Your task to perform on an android device: set default search engine in the chrome app Image 0: 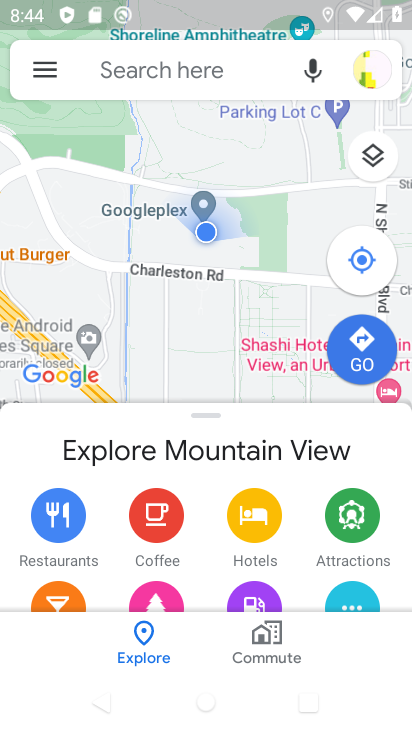
Step 0: press home button
Your task to perform on an android device: set default search engine in the chrome app Image 1: 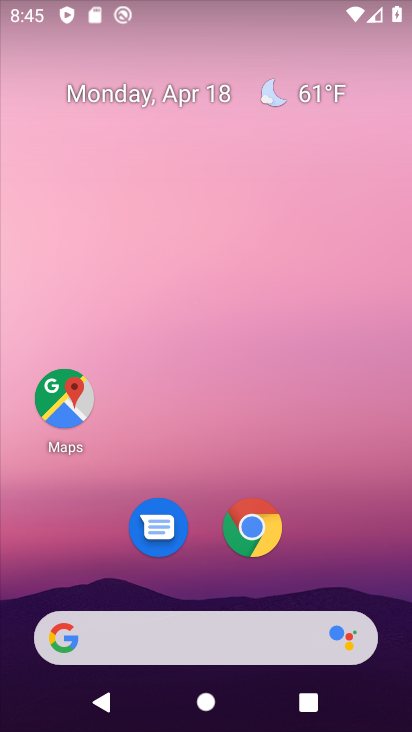
Step 1: click (252, 522)
Your task to perform on an android device: set default search engine in the chrome app Image 2: 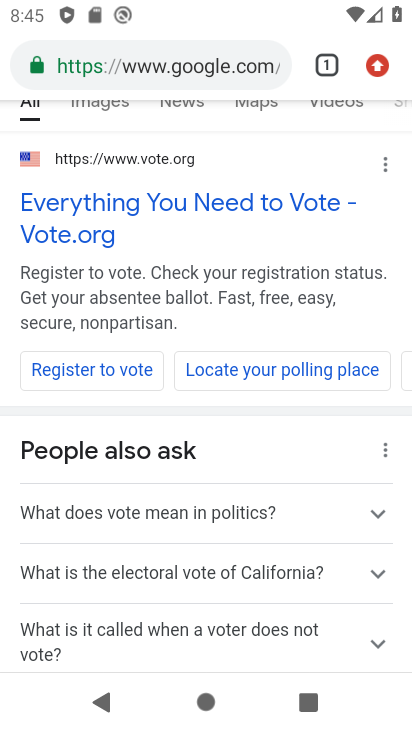
Step 2: drag from (381, 135) to (371, 430)
Your task to perform on an android device: set default search engine in the chrome app Image 3: 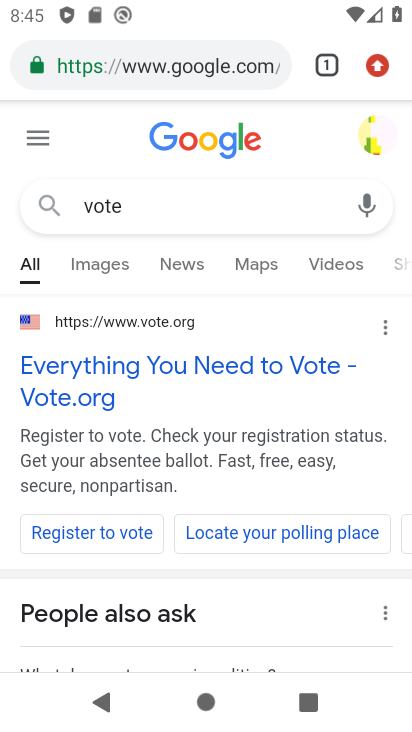
Step 3: drag from (383, 158) to (351, 545)
Your task to perform on an android device: set default search engine in the chrome app Image 4: 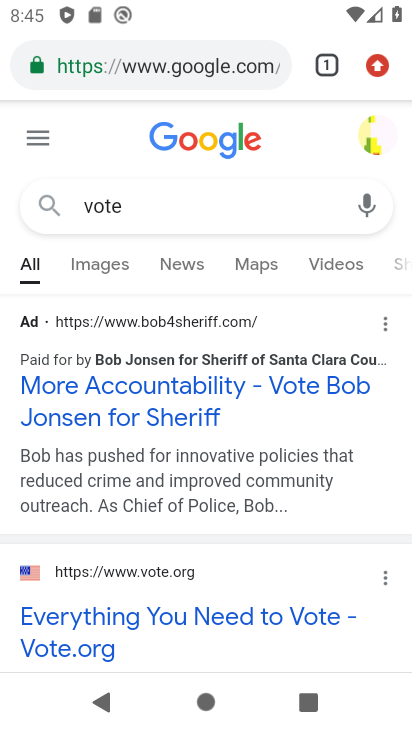
Step 4: drag from (275, 196) to (273, 474)
Your task to perform on an android device: set default search engine in the chrome app Image 5: 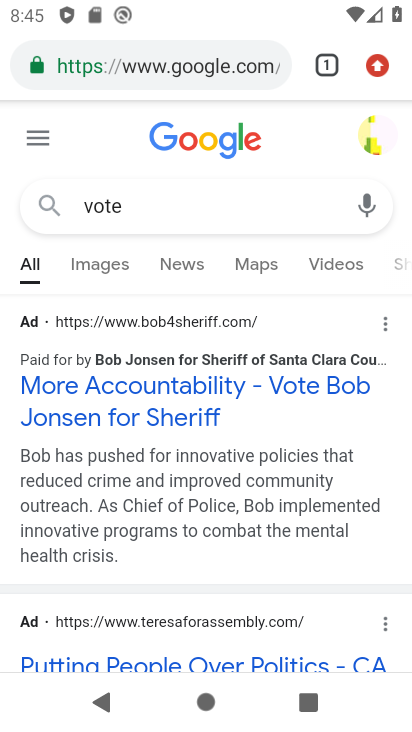
Step 5: click (325, 66)
Your task to perform on an android device: set default search engine in the chrome app Image 6: 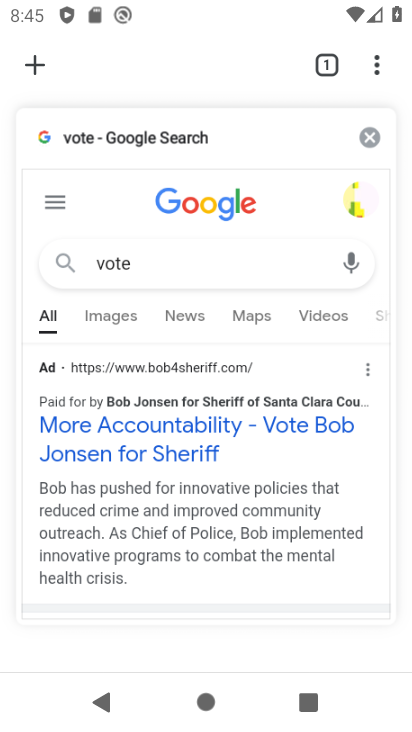
Step 6: click (377, 64)
Your task to perform on an android device: set default search engine in the chrome app Image 7: 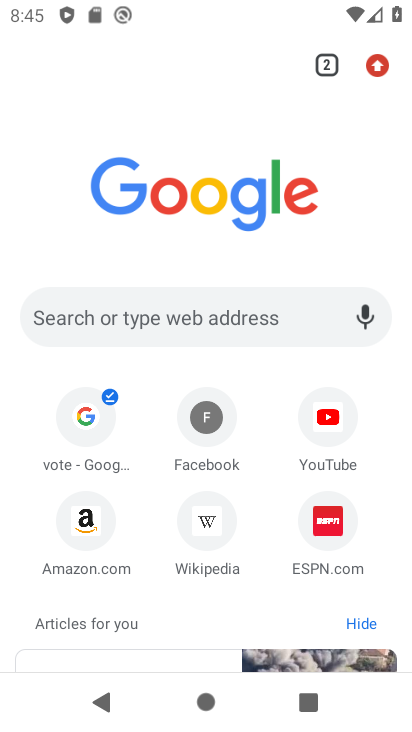
Step 7: click (380, 67)
Your task to perform on an android device: set default search engine in the chrome app Image 8: 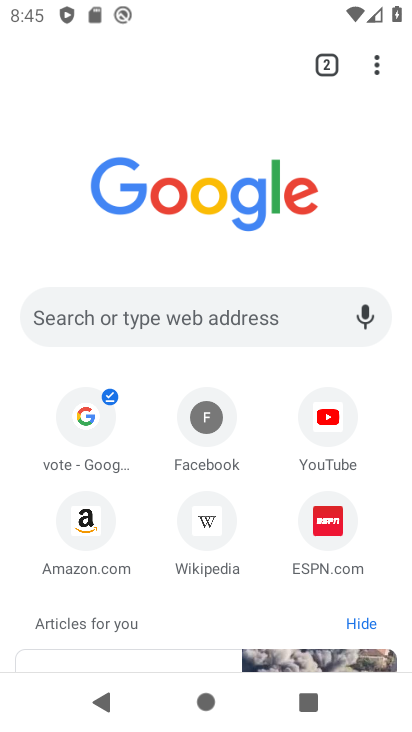
Step 8: click (370, 64)
Your task to perform on an android device: set default search engine in the chrome app Image 9: 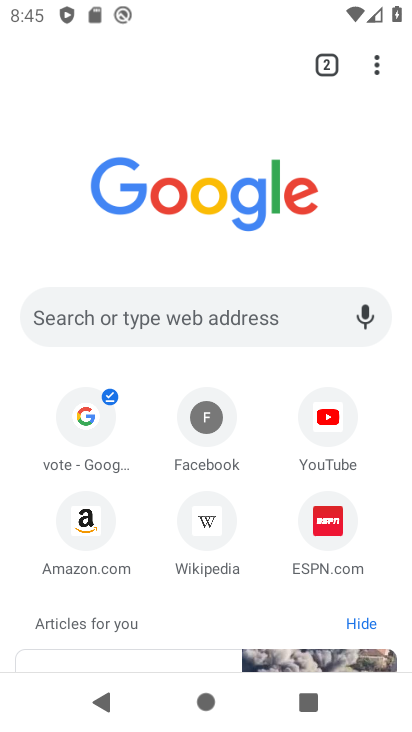
Step 9: click (377, 62)
Your task to perform on an android device: set default search engine in the chrome app Image 10: 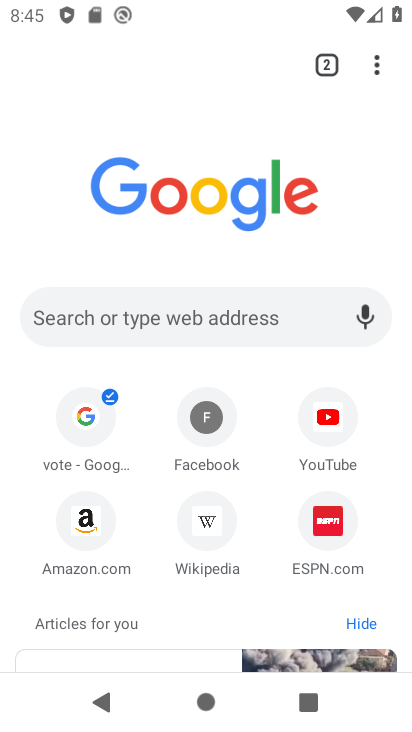
Step 10: click (377, 62)
Your task to perform on an android device: set default search engine in the chrome app Image 11: 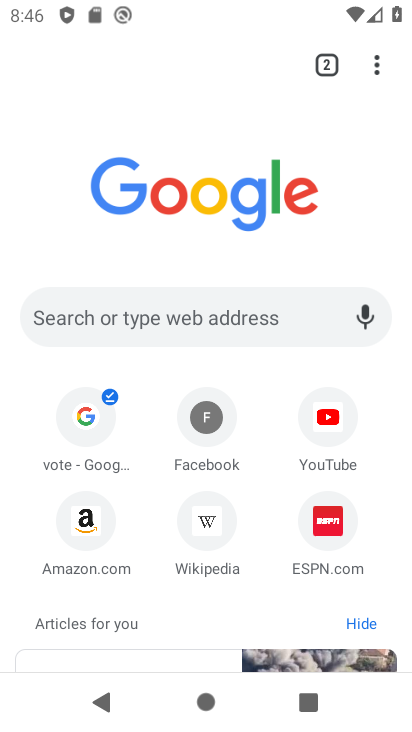
Step 11: click (378, 75)
Your task to perform on an android device: set default search engine in the chrome app Image 12: 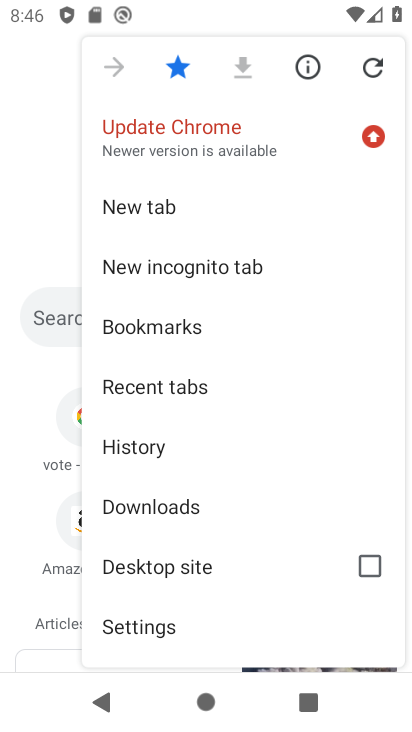
Step 12: click (161, 618)
Your task to perform on an android device: set default search engine in the chrome app Image 13: 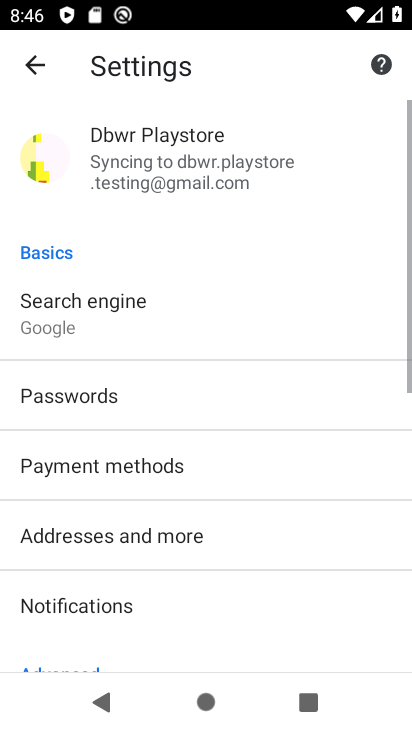
Step 13: click (87, 308)
Your task to perform on an android device: set default search engine in the chrome app Image 14: 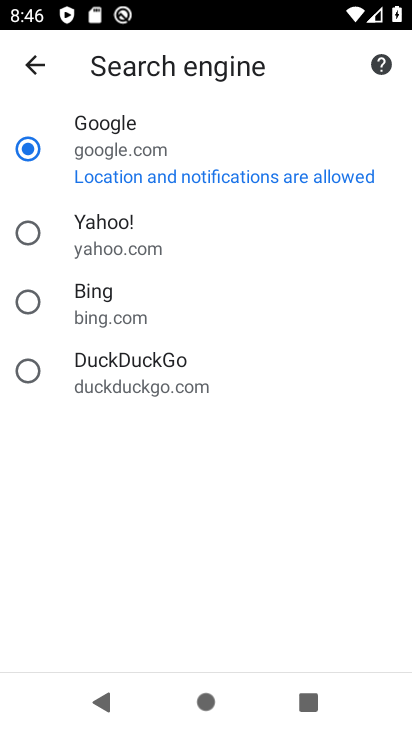
Step 14: click (33, 240)
Your task to perform on an android device: set default search engine in the chrome app Image 15: 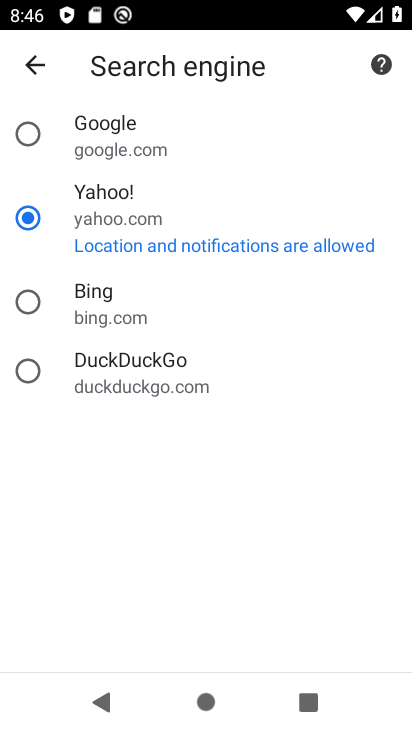
Step 15: task complete